Your task to perform on an android device: Go to Android settings Image 0: 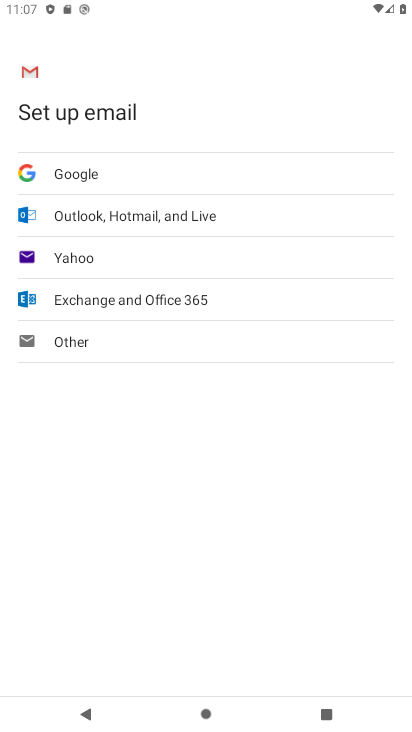
Step 0: press home button
Your task to perform on an android device: Go to Android settings Image 1: 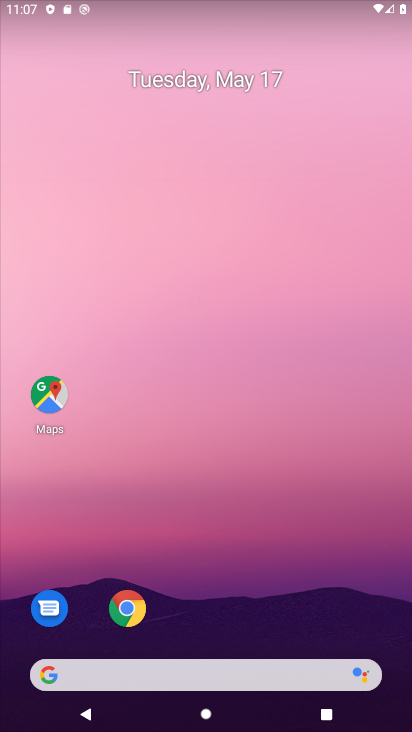
Step 1: drag from (210, 538) to (288, 95)
Your task to perform on an android device: Go to Android settings Image 2: 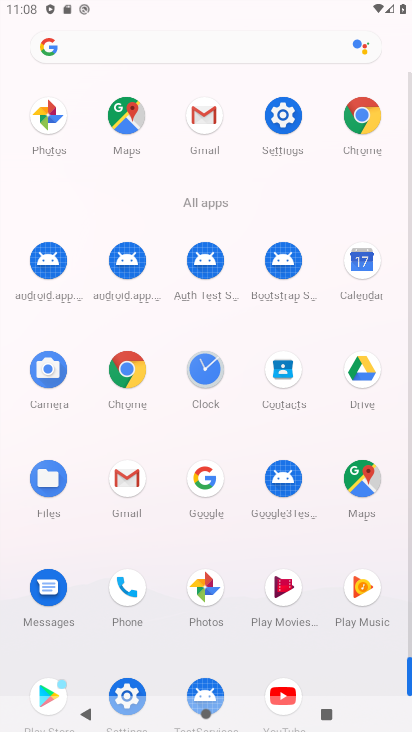
Step 2: click (279, 125)
Your task to perform on an android device: Go to Android settings Image 3: 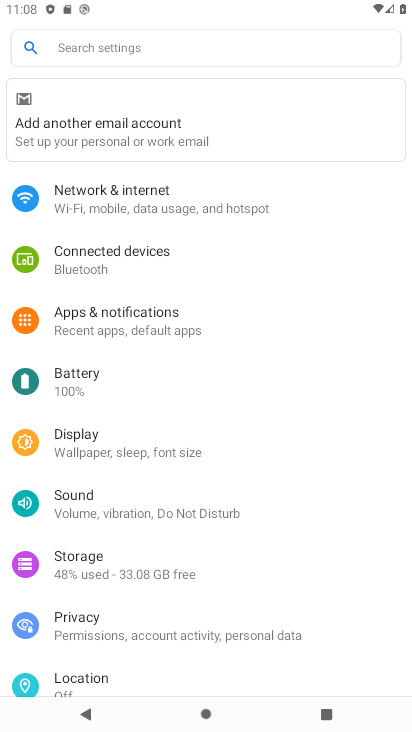
Step 3: drag from (134, 453) to (185, 73)
Your task to perform on an android device: Go to Android settings Image 4: 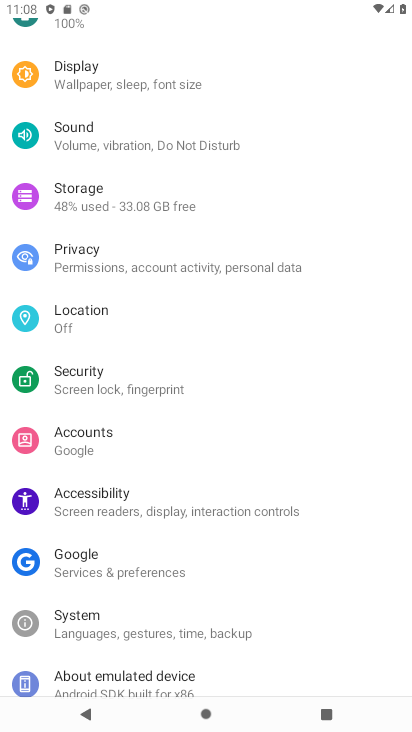
Step 4: drag from (134, 482) to (168, 165)
Your task to perform on an android device: Go to Android settings Image 5: 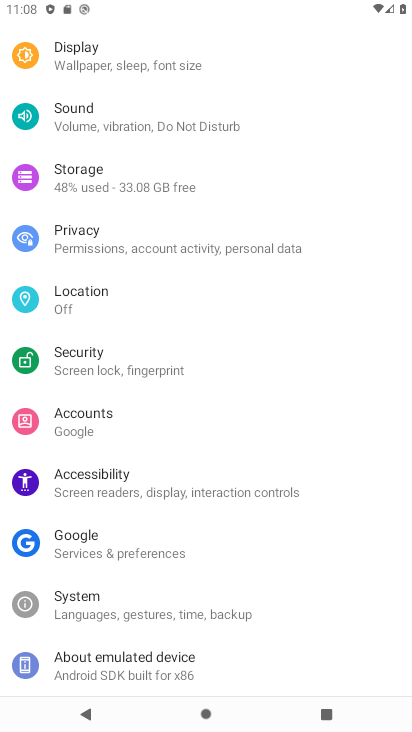
Step 5: drag from (147, 509) to (204, 7)
Your task to perform on an android device: Go to Android settings Image 6: 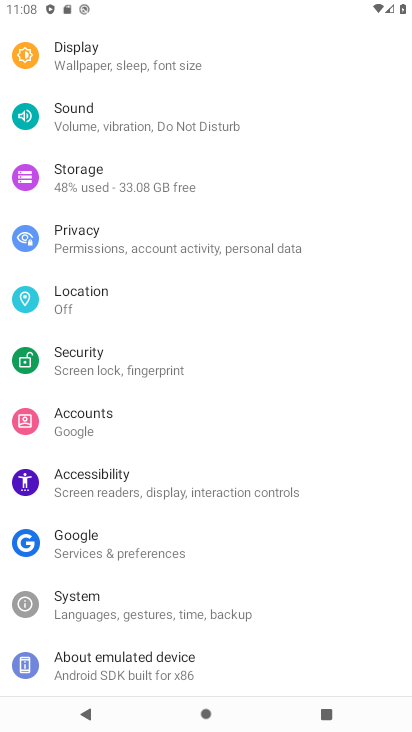
Step 6: drag from (134, 313) to (194, 1)
Your task to perform on an android device: Go to Android settings Image 7: 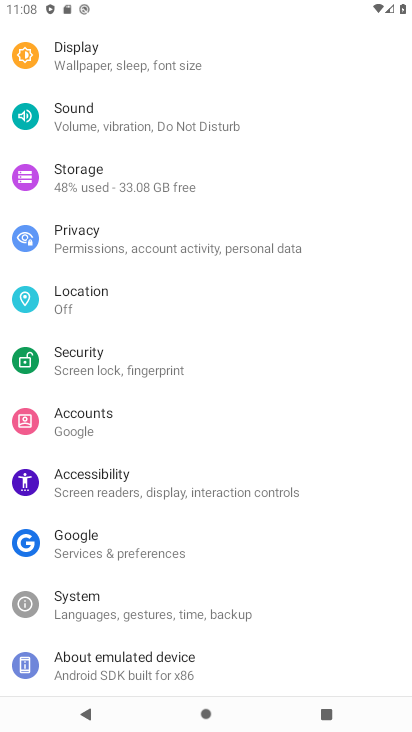
Step 7: drag from (135, 600) to (170, 429)
Your task to perform on an android device: Go to Android settings Image 8: 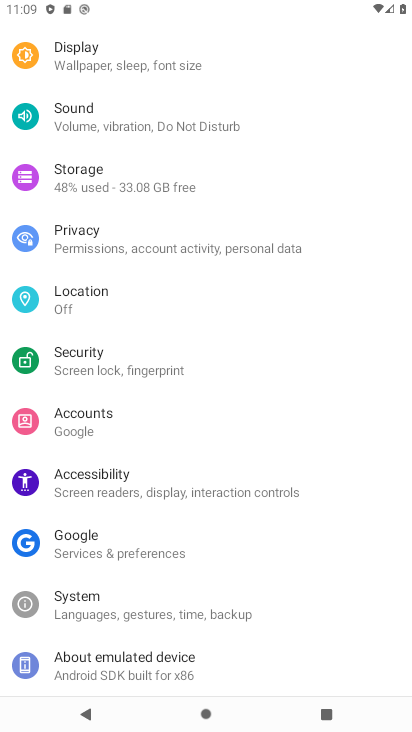
Step 8: click (135, 673)
Your task to perform on an android device: Go to Android settings Image 9: 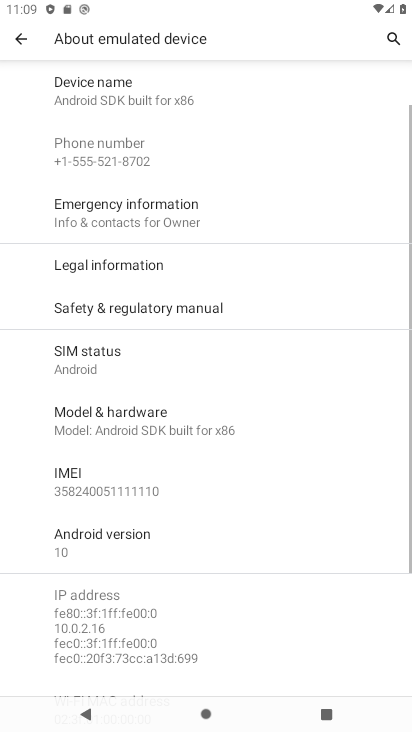
Step 9: task complete